Your task to perform on an android device: Search for seafood restaurants on Google Maps Image 0: 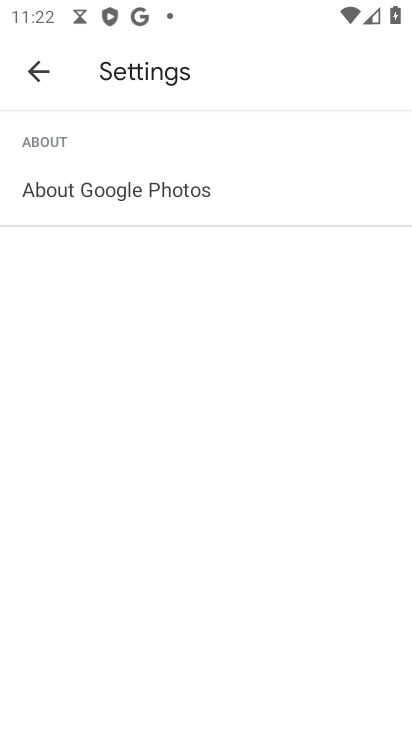
Step 0: press home button
Your task to perform on an android device: Search for seafood restaurants on Google Maps Image 1: 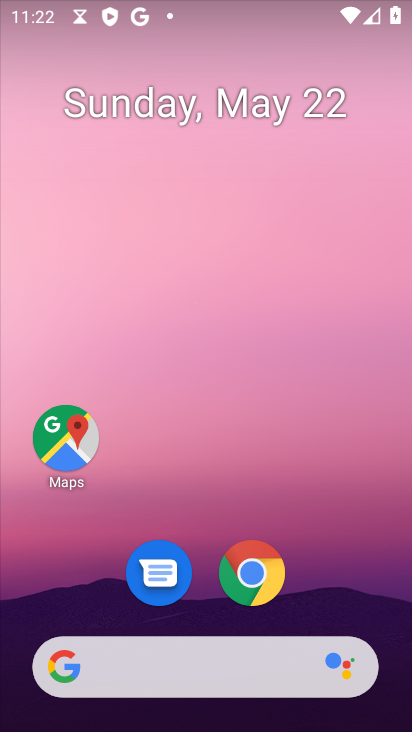
Step 1: click (64, 442)
Your task to perform on an android device: Search for seafood restaurants on Google Maps Image 2: 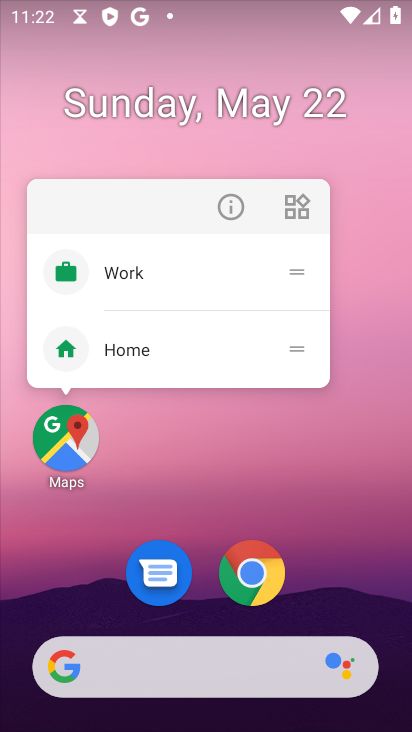
Step 2: click (61, 459)
Your task to perform on an android device: Search for seafood restaurants on Google Maps Image 3: 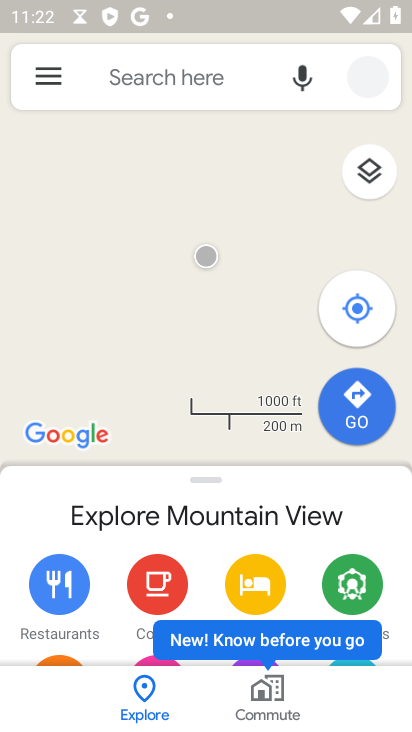
Step 3: click (193, 88)
Your task to perform on an android device: Search for seafood restaurants on Google Maps Image 4: 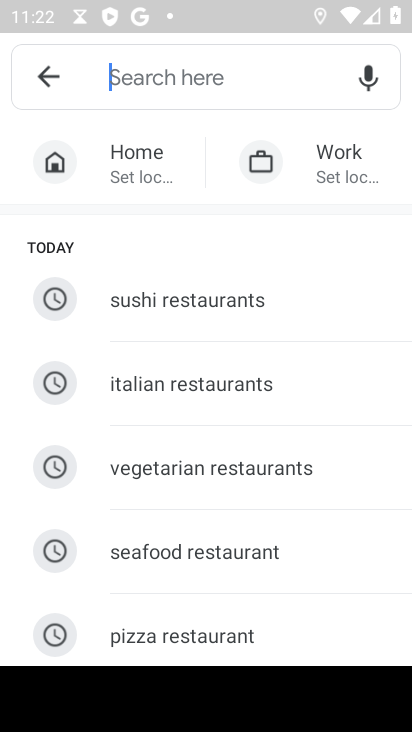
Step 4: click (225, 551)
Your task to perform on an android device: Search for seafood restaurants on Google Maps Image 5: 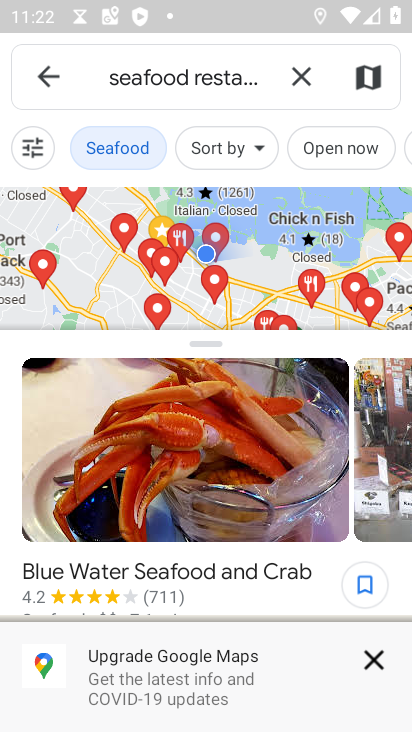
Step 5: task complete